Your task to perform on an android device: Go to accessibility settings Image 0: 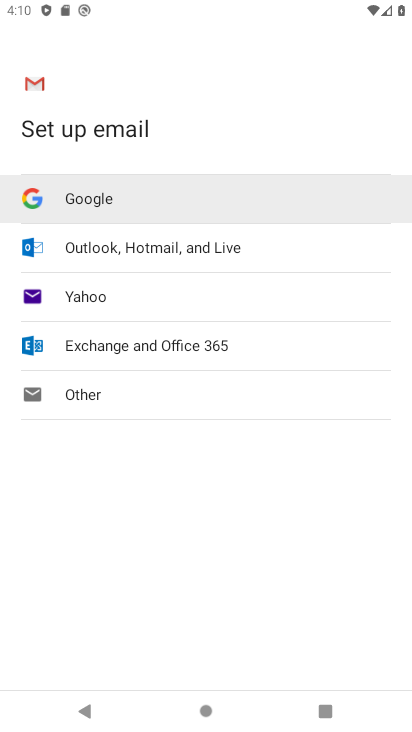
Step 0: press home button
Your task to perform on an android device: Go to accessibility settings Image 1: 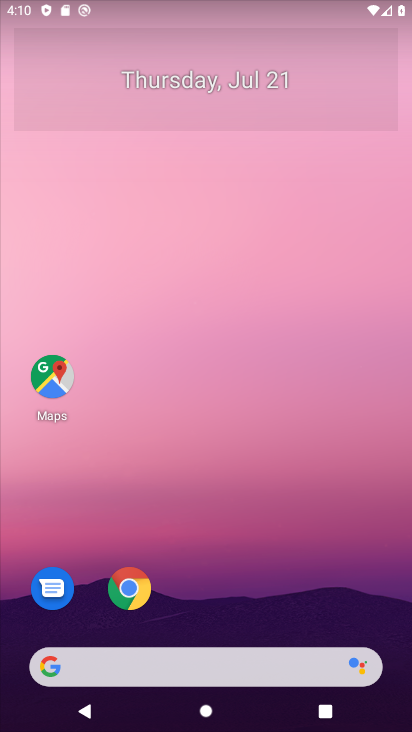
Step 1: drag from (280, 548) to (338, 180)
Your task to perform on an android device: Go to accessibility settings Image 2: 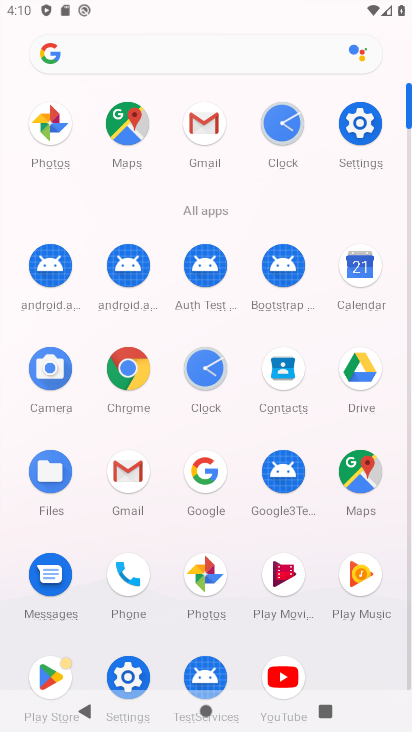
Step 2: click (122, 673)
Your task to perform on an android device: Go to accessibility settings Image 3: 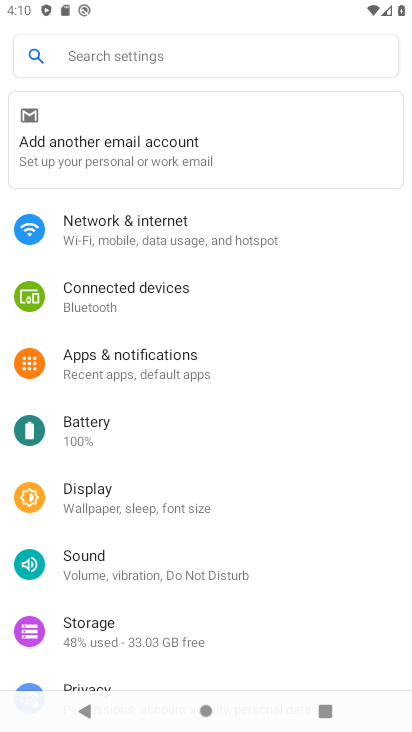
Step 3: drag from (203, 594) to (203, 430)
Your task to perform on an android device: Go to accessibility settings Image 4: 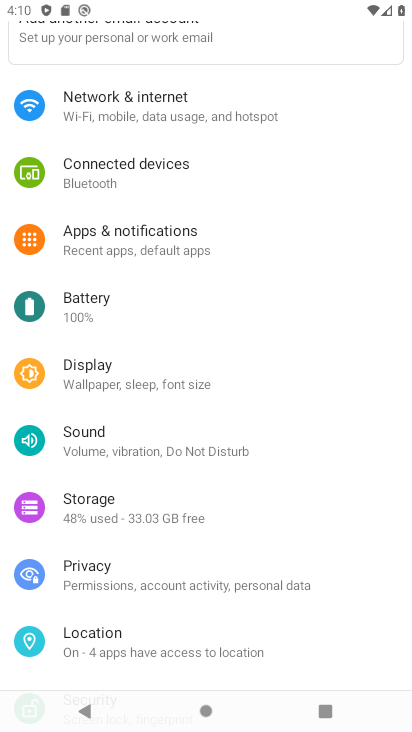
Step 4: drag from (174, 568) to (221, 343)
Your task to perform on an android device: Go to accessibility settings Image 5: 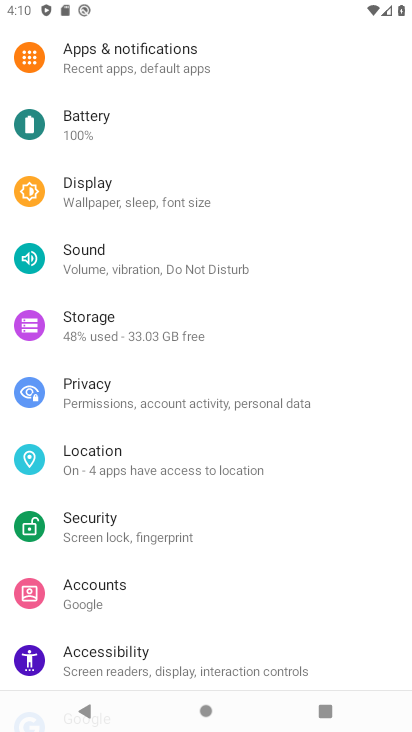
Step 5: click (125, 657)
Your task to perform on an android device: Go to accessibility settings Image 6: 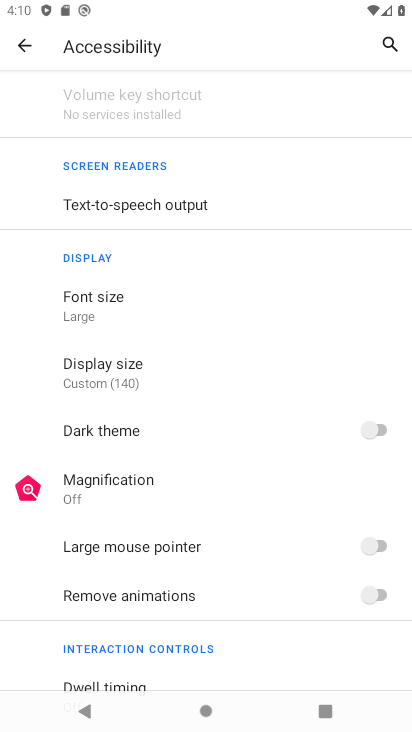
Step 6: task complete